Your task to perform on an android device: Open internet settings Image 0: 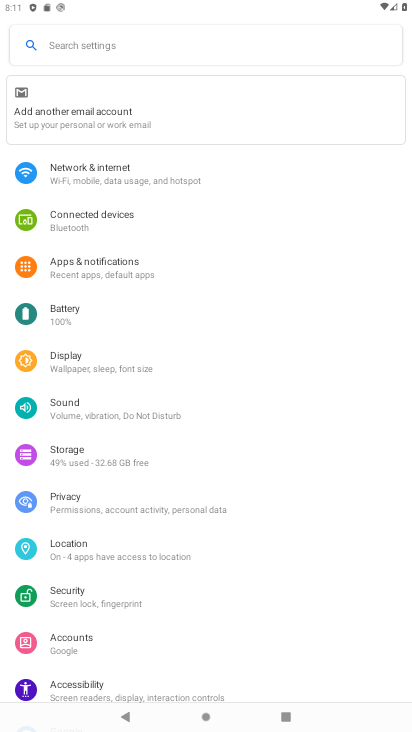
Step 0: click (77, 171)
Your task to perform on an android device: Open internet settings Image 1: 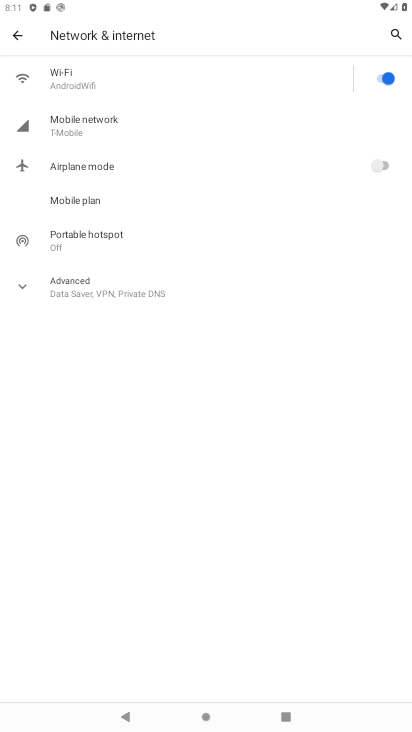
Step 1: task complete